Your task to perform on an android device: Open Amazon Image 0: 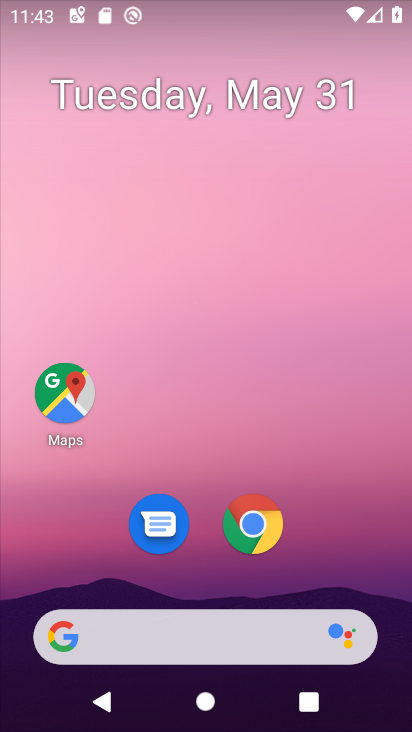
Step 0: click (267, 514)
Your task to perform on an android device: Open Amazon Image 1: 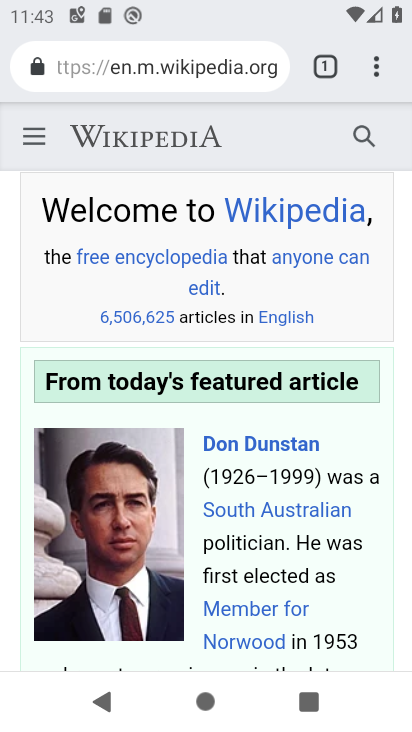
Step 1: click (374, 62)
Your task to perform on an android device: Open Amazon Image 2: 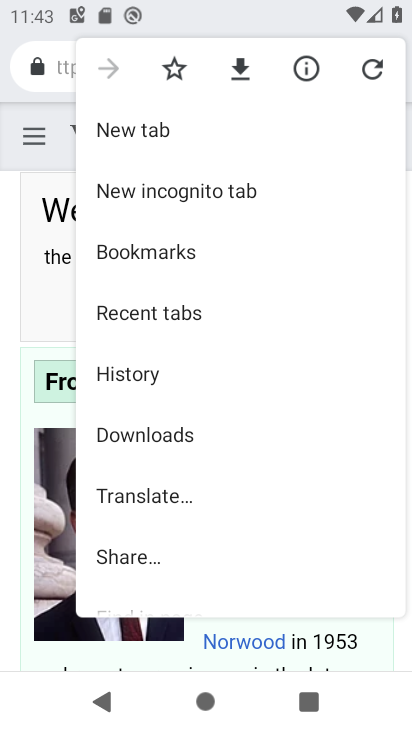
Step 2: click (289, 123)
Your task to perform on an android device: Open Amazon Image 3: 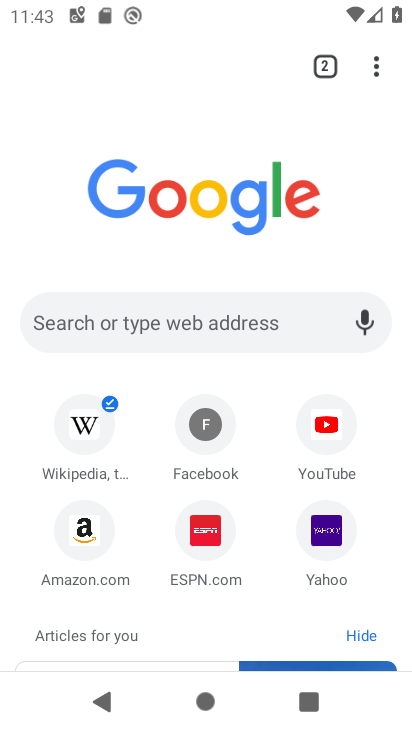
Step 3: click (89, 523)
Your task to perform on an android device: Open Amazon Image 4: 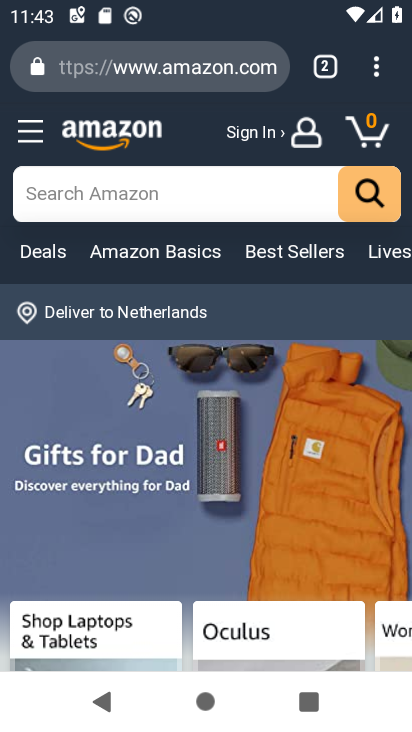
Step 4: task complete